Your task to perform on an android device: Search for seafood restaurants on Google Maps Image 0: 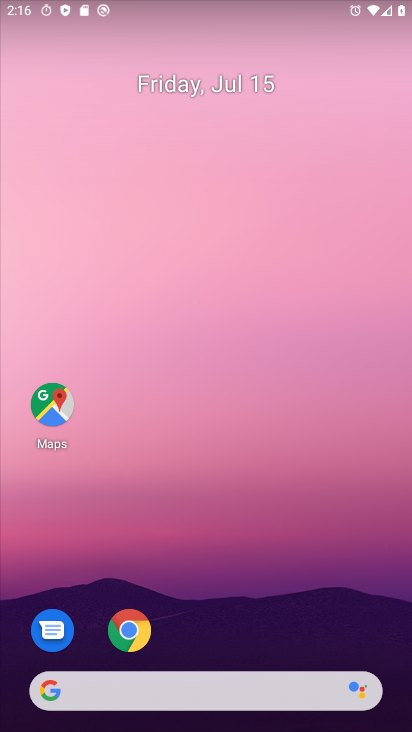
Step 0: click (30, 400)
Your task to perform on an android device: Search for seafood restaurants on Google Maps Image 1: 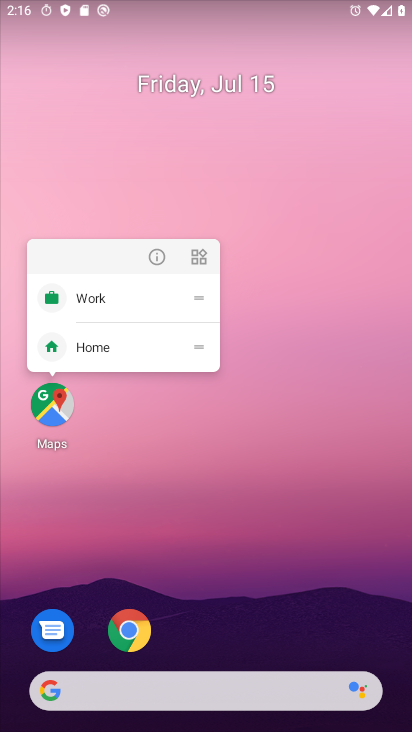
Step 1: click (160, 287)
Your task to perform on an android device: Search for seafood restaurants on Google Maps Image 2: 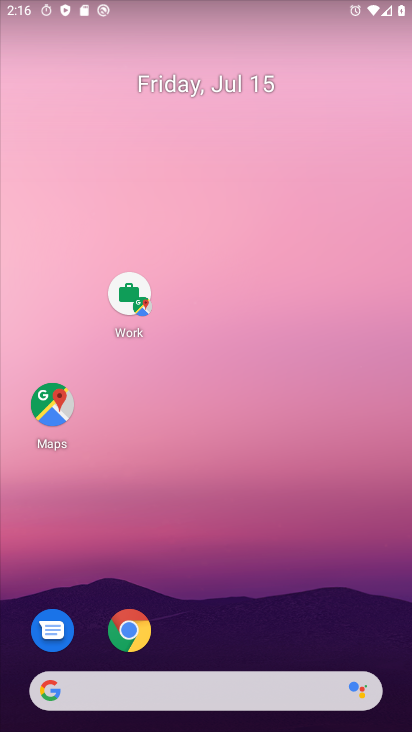
Step 2: click (63, 387)
Your task to perform on an android device: Search for seafood restaurants on Google Maps Image 3: 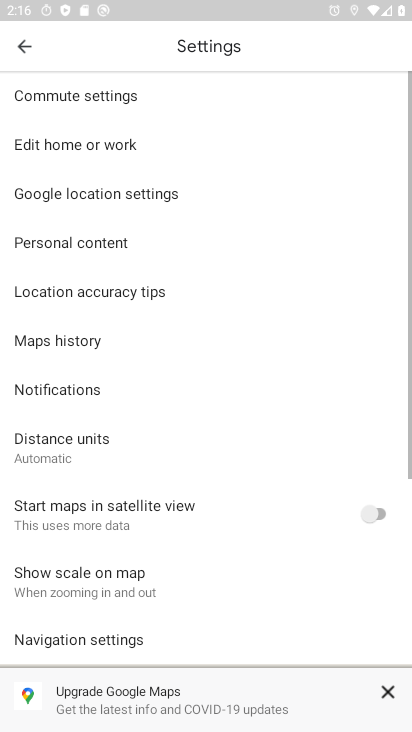
Step 3: click (40, 44)
Your task to perform on an android device: Search for seafood restaurants on Google Maps Image 4: 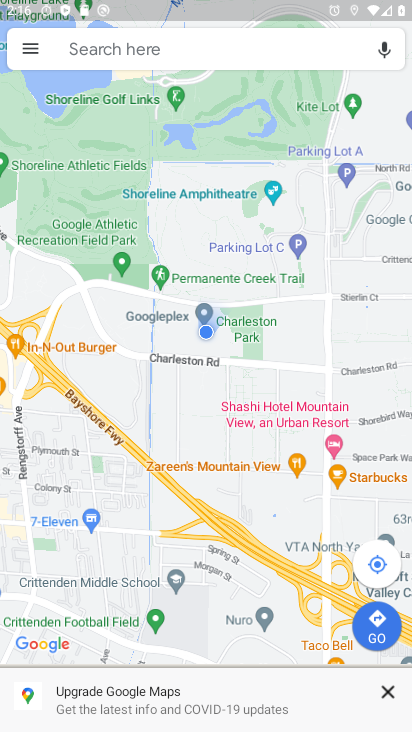
Step 4: click (246, 32)
Your task to perform on an android device: Search for seafood restaurants on Google Maps Image 5: 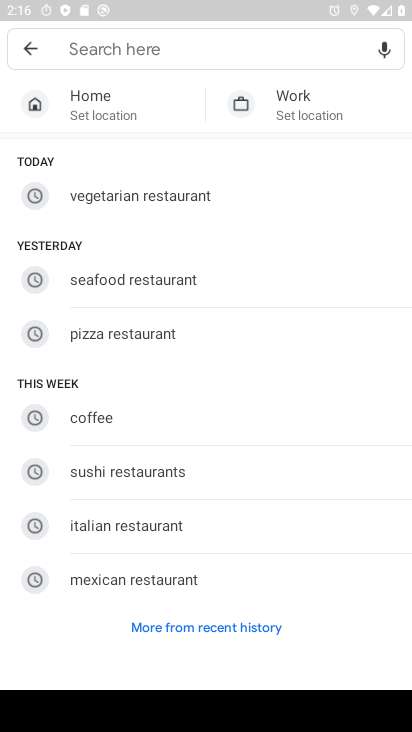
Step 5: type "seafood restaurants"
Your task to perform on an android device: Search for seafood restaurants on Google Maps Image 6: 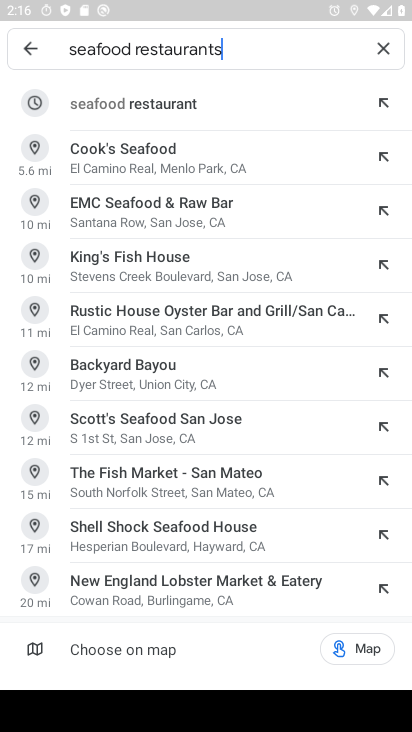
Step 6: click (162, 113)
Your task to perform on an android device: Search for seafood restaurants on Google Maps Image 7: 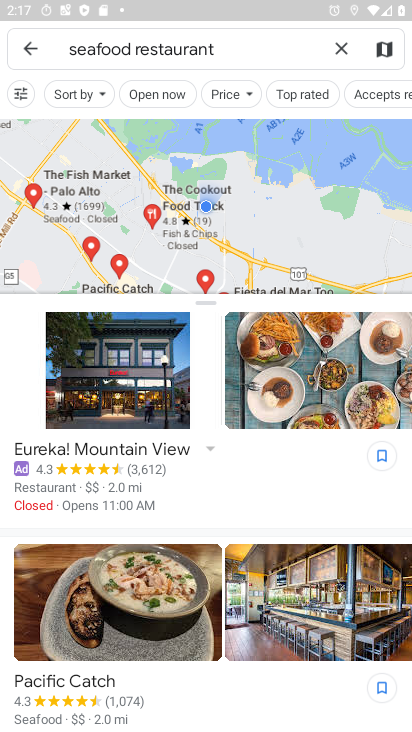
Step 7: task complete